Your task to perform on an android device: turn on improve location accuracy Image 0: 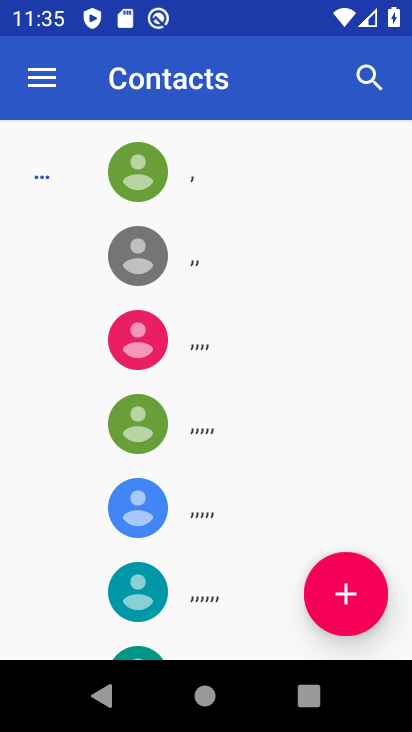
Step 0: press home button
Your task to perform on an android device: turn on improve location accuracy Image 1: 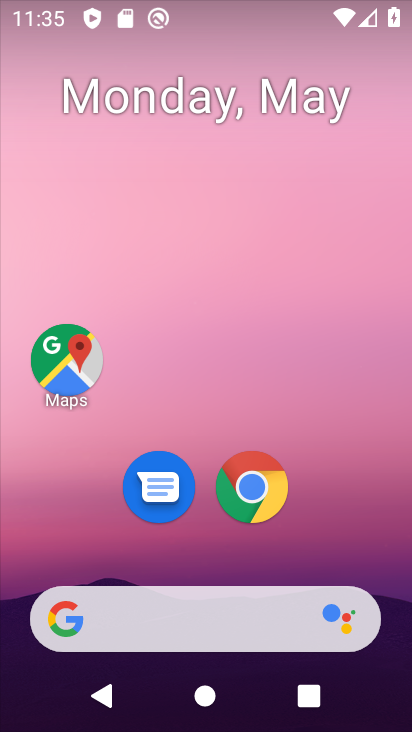
Step 1: drag from (27, 521) to (180, 190)
Your task to perform on an android device: turn on improve location accuracy Image 2: 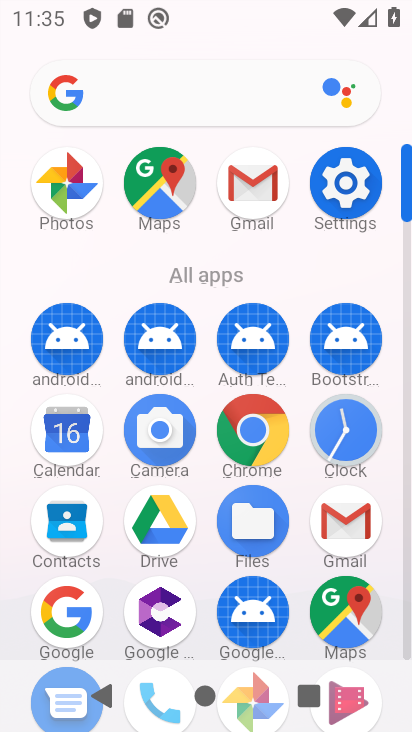
Step 2: click (340, 191)
Your task to perform on an android device: turn on improve location accuracy Image 3: 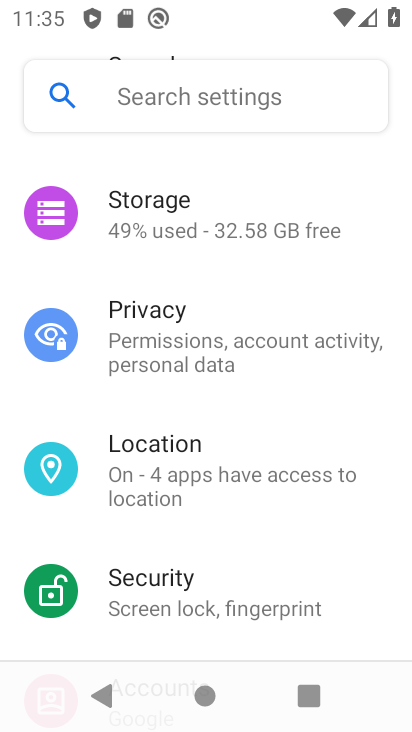
Step 3: drag from (7, 518) to (67, 357)
Your task to perform on an android device: turn on improve location accuracy Image 4: 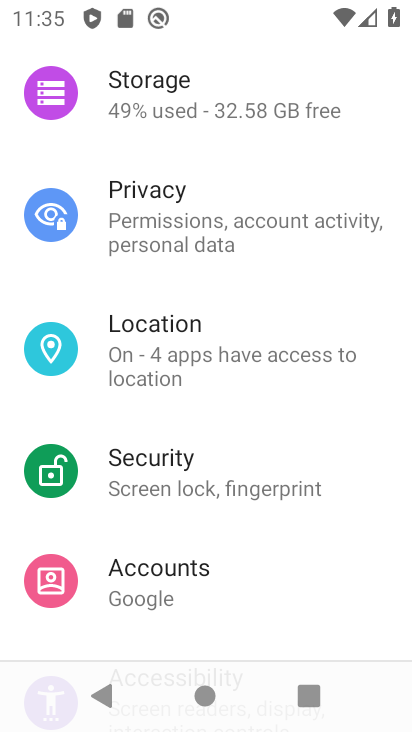
Step 4: click (97, 324)
Your task to perform on an android device: turn on improve location accuracy Image 5: 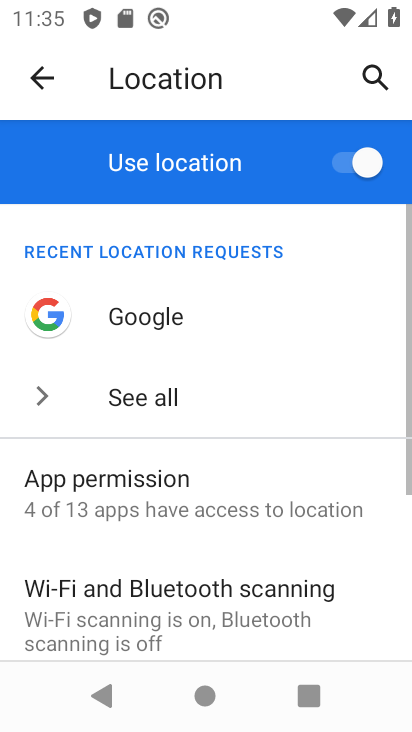
Step 5: drag from (10, 554) to (164, 296)
Your task to perform on an android device: turn on improve location accuracy Image 6: 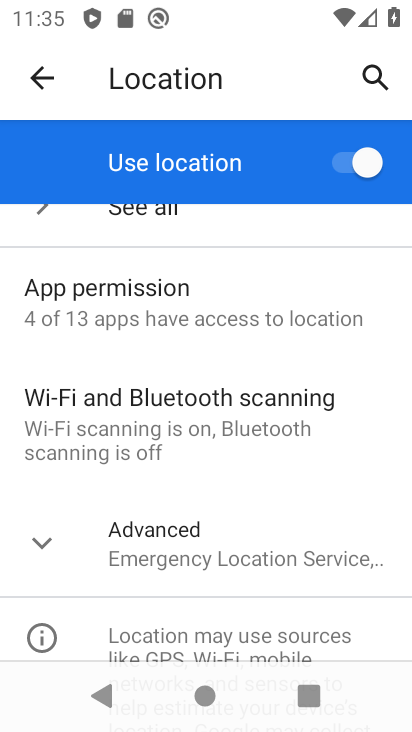
Step 6: click (165, 553)
Your task to perform on an android device: turn on improve location accuracy Image 7: 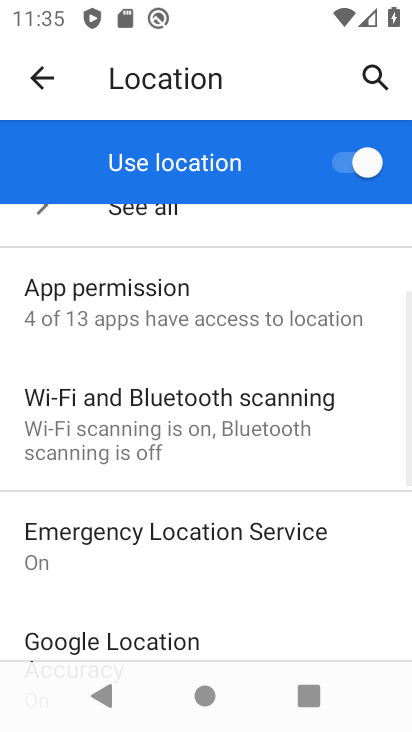
Step 7: drag from (6, 591) to (205, 206)
Your task to perform on an android device: turn on improve location accuracy Image 8: 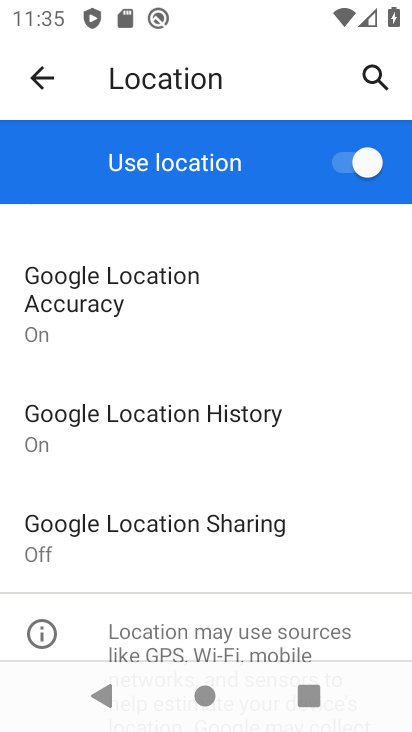
Step 8: click (135, 302)
Your task to perform on an android device: turn on improve location accuracy Image 9: 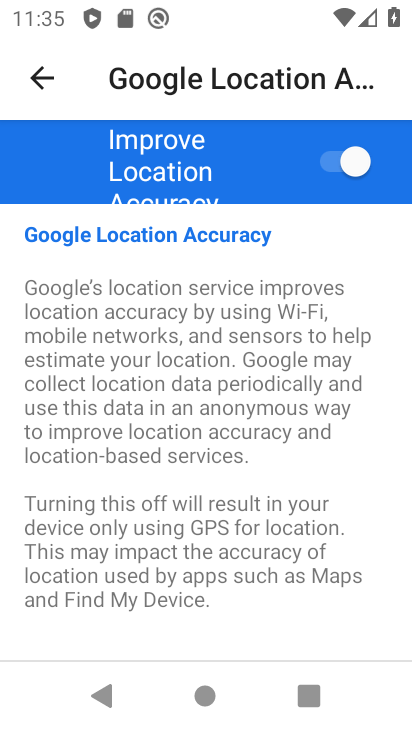
Step 9: task complete